Your task to perform on an android device: Open network settings Image 0: 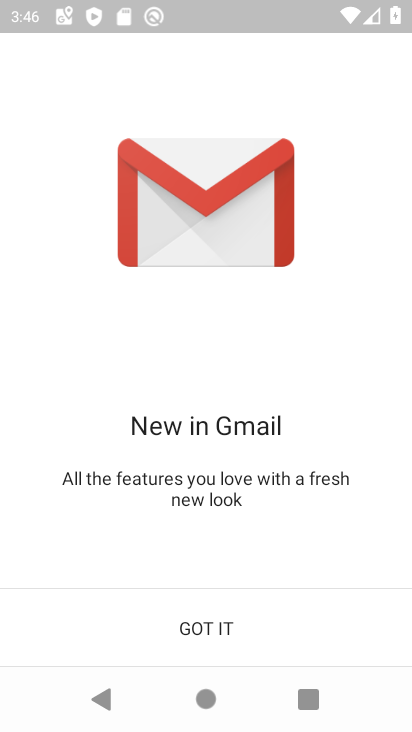
Step 0: press home button
Your task to perform on an android device: Open network settings Image 1: 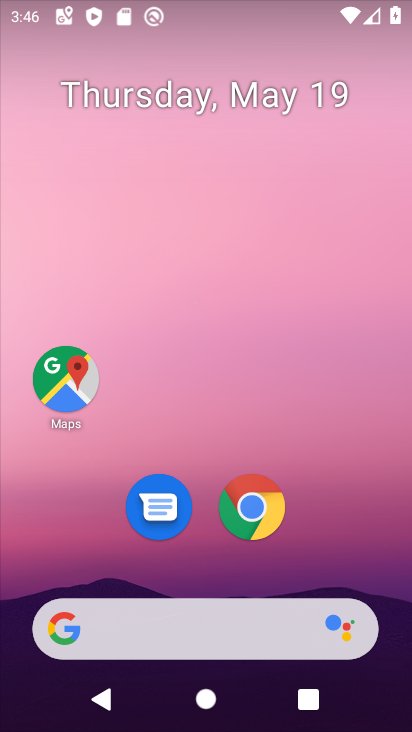
Step 1: drag from (358, 432) to (339, 128)
Your task to perform on an android device: Open network settings Image 2: 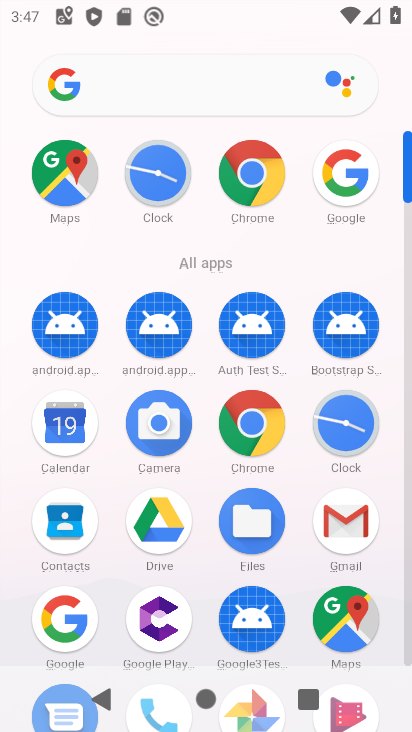
Step 2: drag from (410, 137) to (411, 84)
Your task to perform on an android device: Open network settings Image 3: 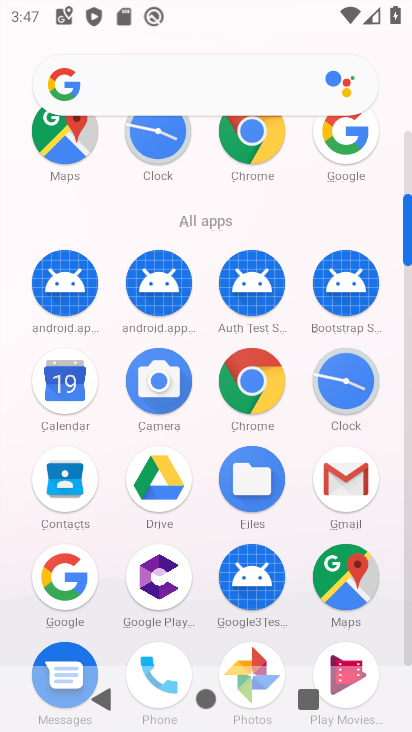
Step 3: drag from (407, 199) to (408, 124)
Your task to perform on an android device: Open network settings Image 4: 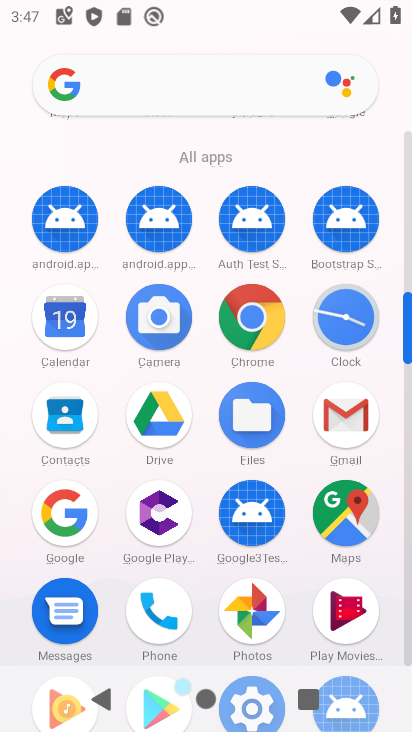
Step 4: drag from (411, 293) to (409, 174)
Your task to perform on an android device: Open network settings Image 5: 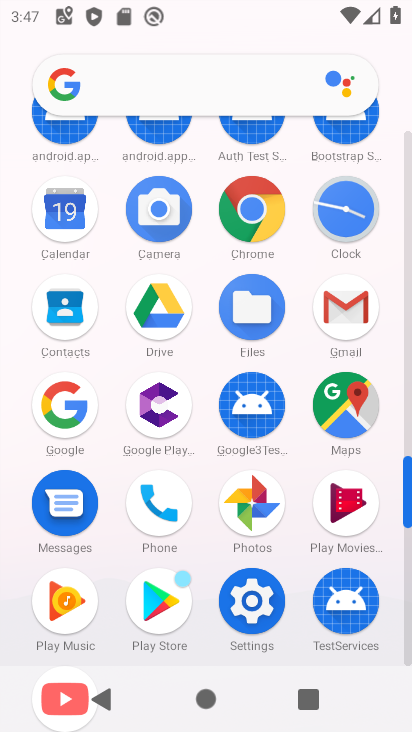
Step 5: drag from (409, 302) to (405, 234)
Your task to perform on an android device: Open network settings Image 6: 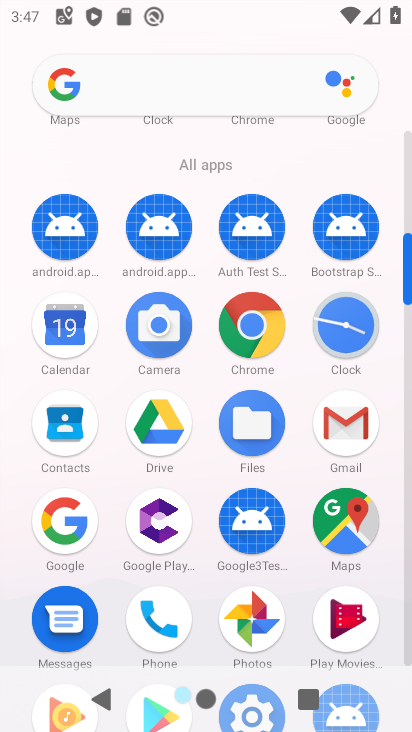
Step 6: drag from (411, 238) to (411, 181)
Your task to perform on an android device: Open network settings Image 7: 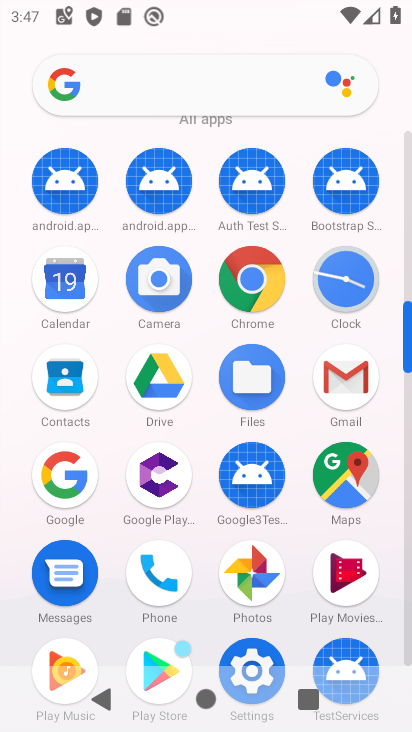
Step 7: click (245, 650)
Your task to perform on an android device: Open network settings Image 8: 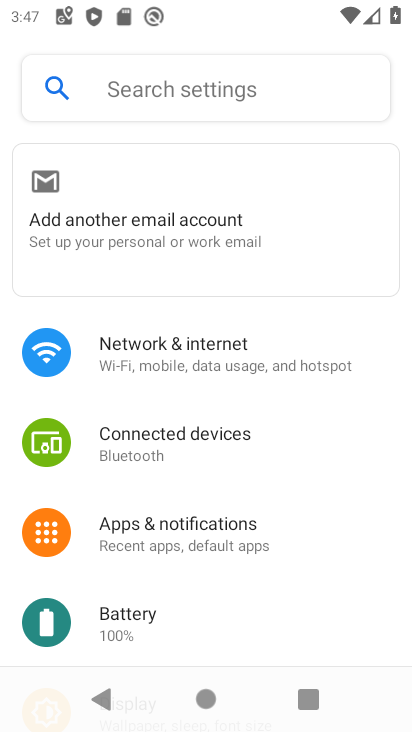
Step 8: click (176, 356)
Your task to perform on an android device: Open network settings Image 9: 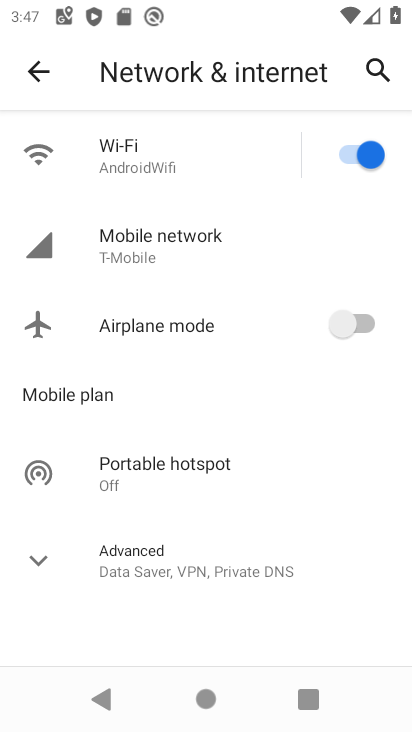
Step 9: click (147, 245)
Your task to perform on an android device: Open network settings Image 10: 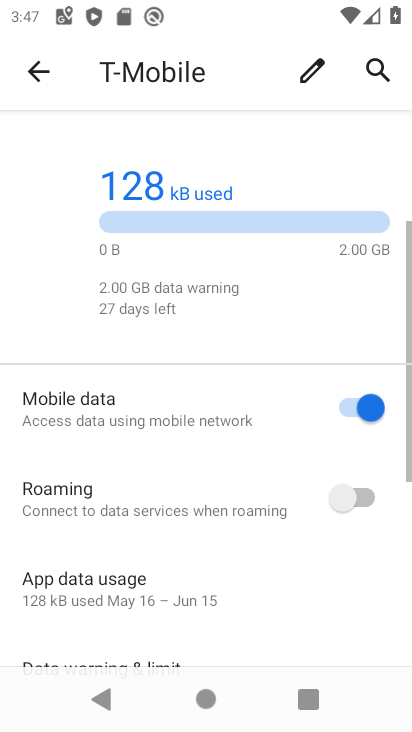
Step 10: task complete